Your task to perform on an android device: allow cookies in the chrome app Image 0: 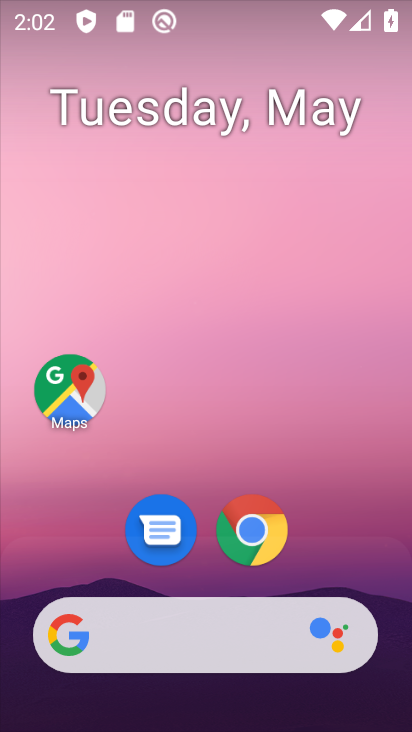
Step 0: click (256, 530)
Your task to perform on an android device: allow cookies in the chrome app Image 1: 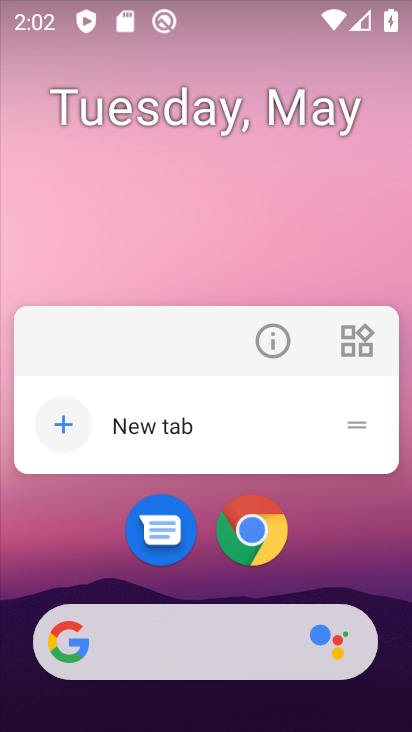
Step 1: click (267, 520)
Your task to perform on an android device: allow cookies in the chrome app Image 2: 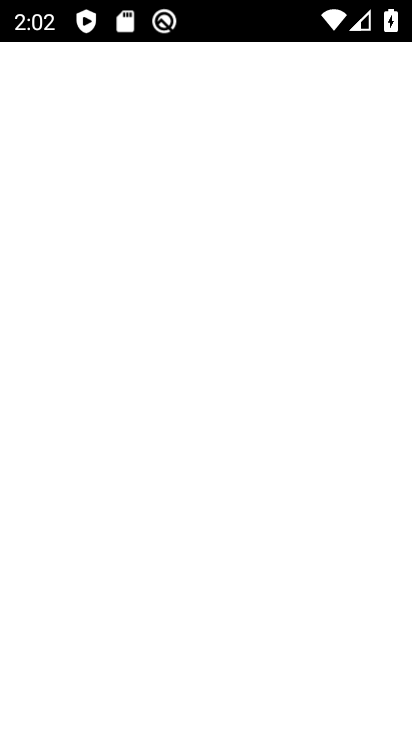
Step 2: click (245, 547)
Your task to perform on an android device: allow cookies in the chrome app Image 3: 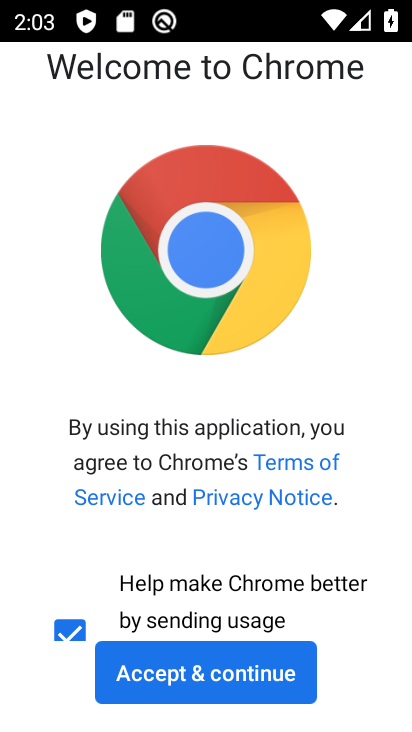
Step 3: click (243, 672)
Your task to perform on an android device: allow cookies in the chrome app Image 4: 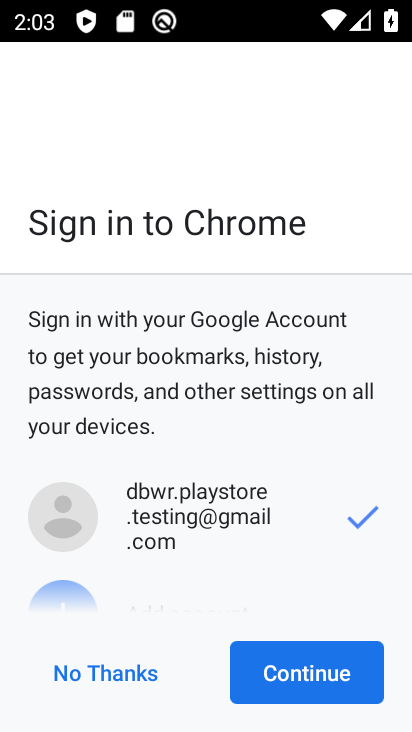
Step 4: click (300, 674)
Your task to perform on an android device: allow cookies in the chrome app Image 5: 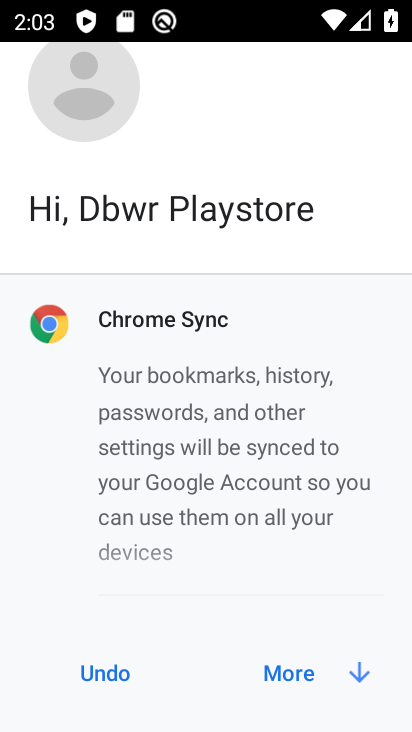
Step 5: click (285, 676)
Your task to perform on an android device: allow cookies in the chrome app Image 6: 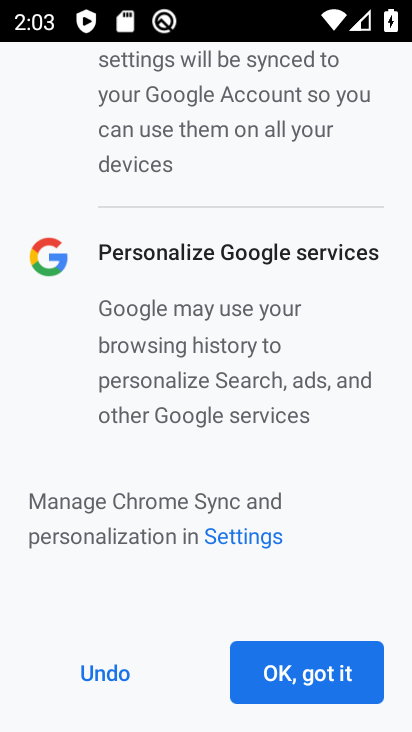
Step 6: click (285, 676)
Your task to perform on an android device: allow cookies in the chrome app Image 7: 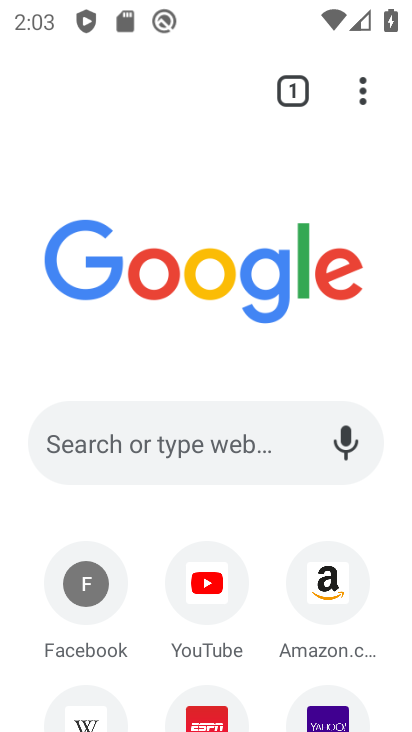
Step 7: click (363, 81)
Your task to perform on an android device: allow cookies in the chrome app Image 8: 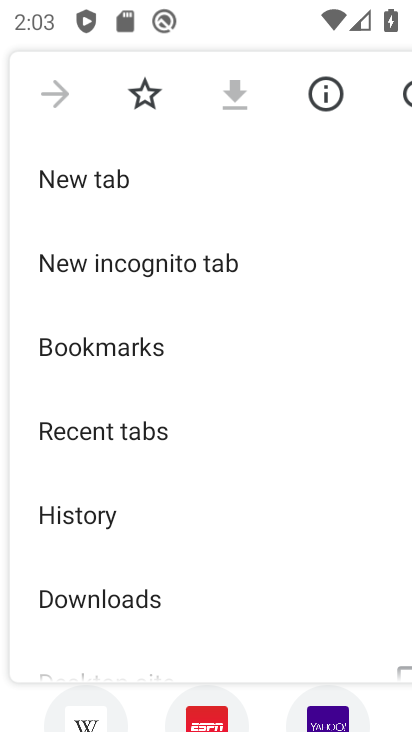
Step 8: click (85, 508)
Your task to perform on an android device: allow cookies in the chrome app Image 9: 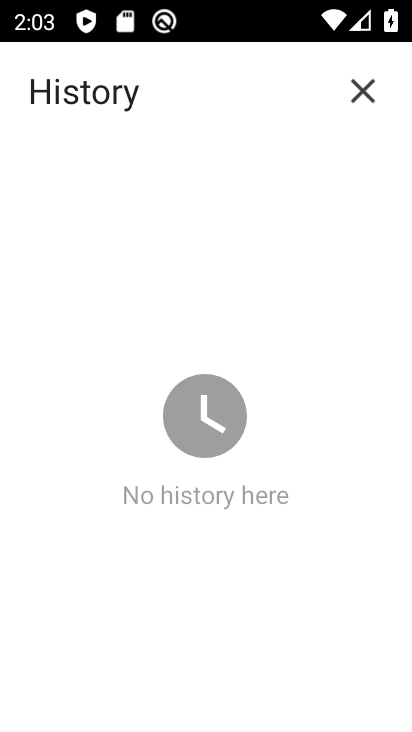
Step 9: task complete